Your task to perform on an android device: What's on my calendar tomorrow? Image 0: 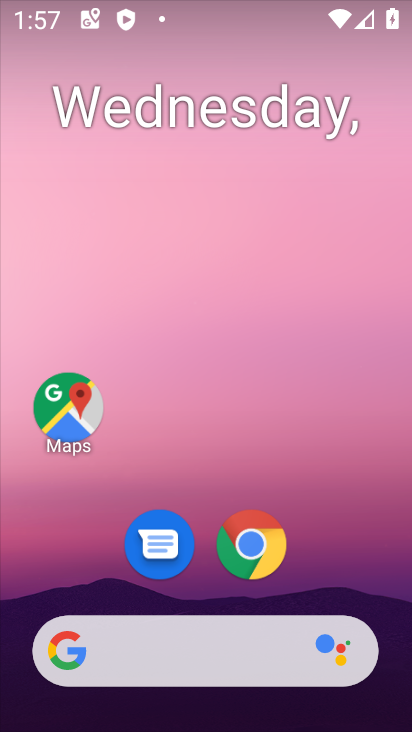
Step 0: drag from (363, 563) to (334, 135)
Your task to perform on an android device: What's on my calendar tomorrow? Image 1: 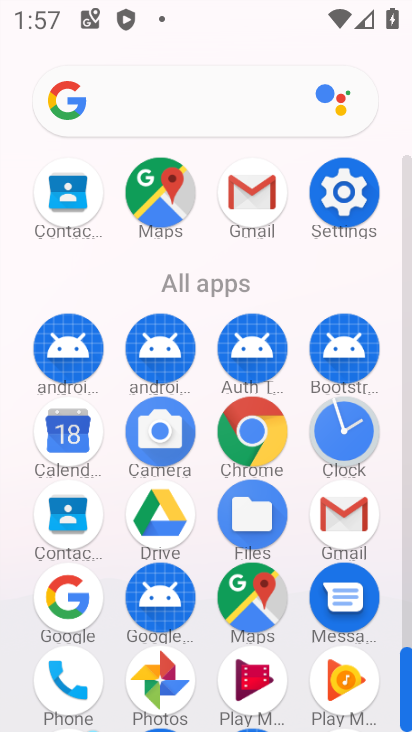
Step 1: click (62, 451)
Your task to perform on an android device: What's on my calendar tomorrow? Image 2: 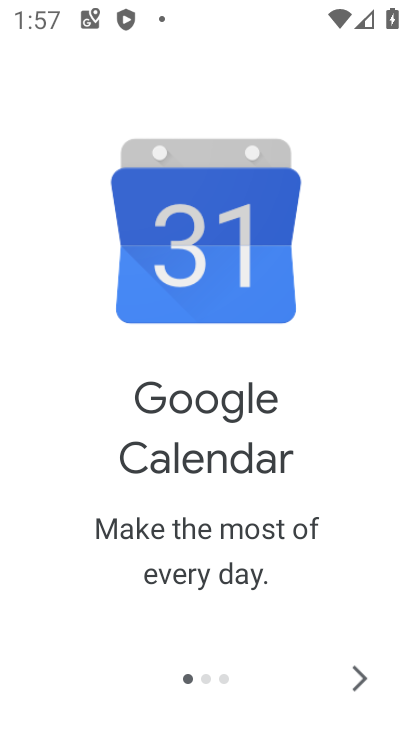
Step 2: click (348, 656)
Your task to perform on an android device: What's on my calendar tomorrow? Image 3: 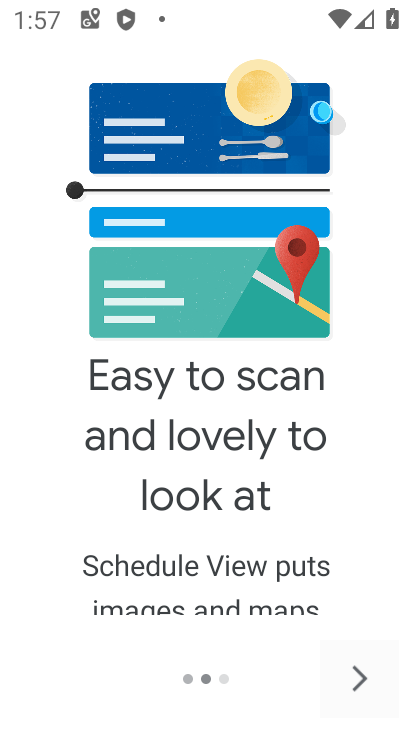
Step 3: click (348, 656)
Your task to perform on an android device: What's on my calendar tomorrow? Image 4: 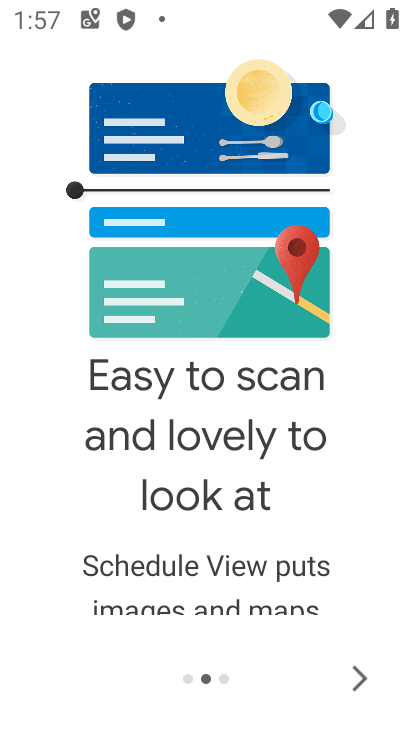
Step 4: click (348, 656)
Your task to perform on an android device: What's on my calendar tomorrow? Image 5: 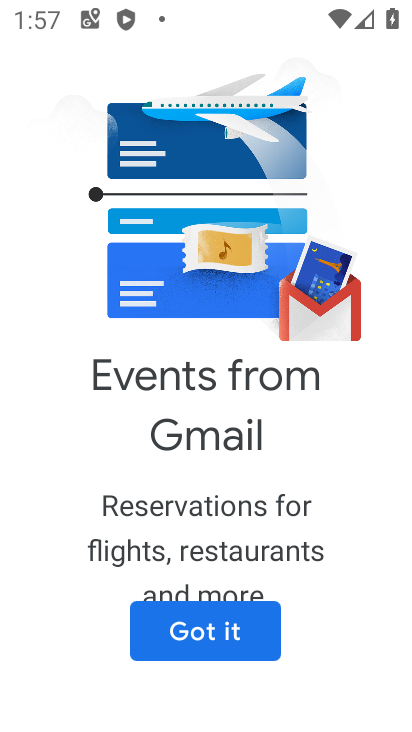
Step 5: click (217, 640)
Your task to perform on an android device: What's on my calendar tomorrow? Image 6: 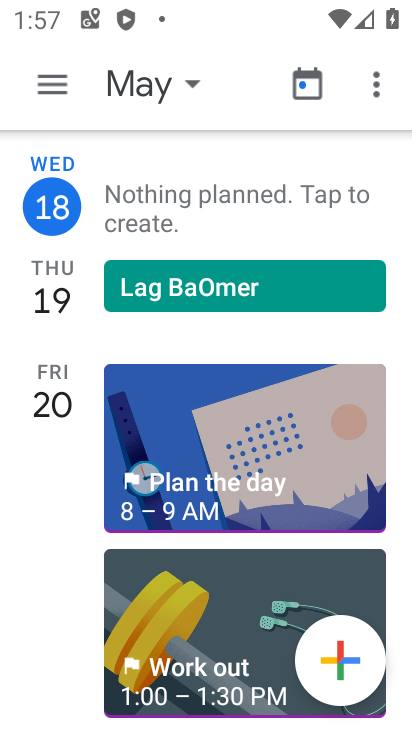
Step 6: click (166, 101)
Your task to perform on an android device: What's on my calendar tomorrow? Image 7: 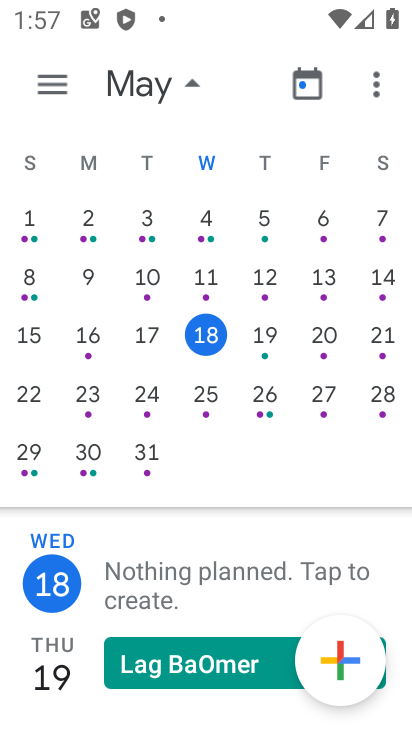
Step 7: click (266, 343)
Your task to perform on an android device: What's on my calendar tomorrow? Image 8: 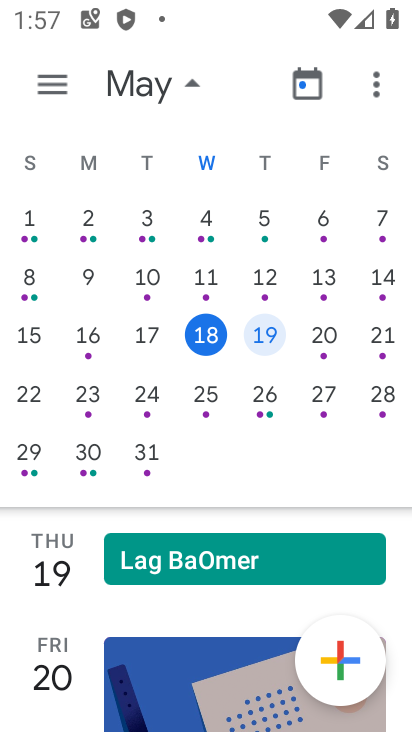
Step 8: task complete